Your task to perform on an android device: turn off location Image 0: 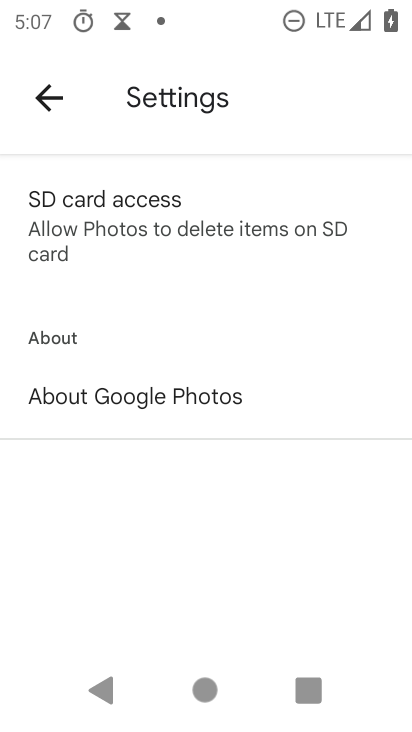
Step 0: press home button
Your task to perform on an android device: turn off location Image 1: 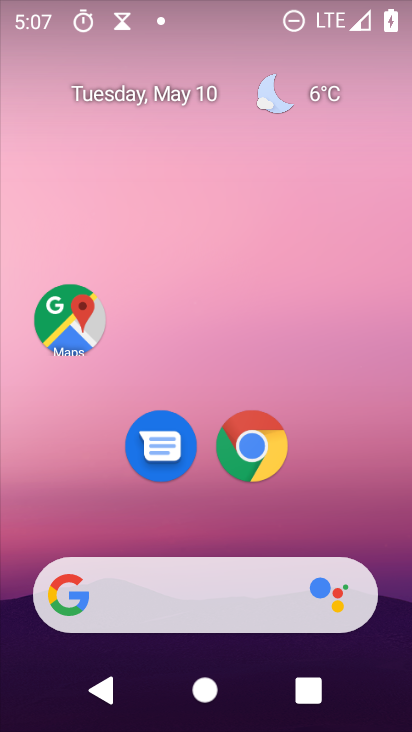
Step 1: drag from (334, 531) to (240, 120)
Your task to perform on an android device: turn off location Image 2: 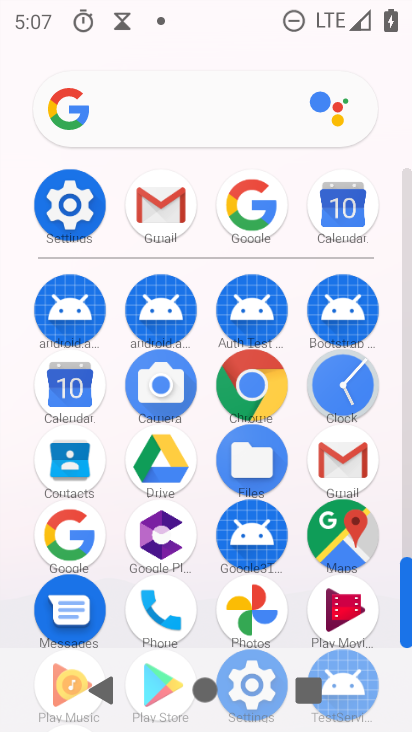
Step 2: click (69, 187)
Your task to perform on an android device: turn off location Image 3: 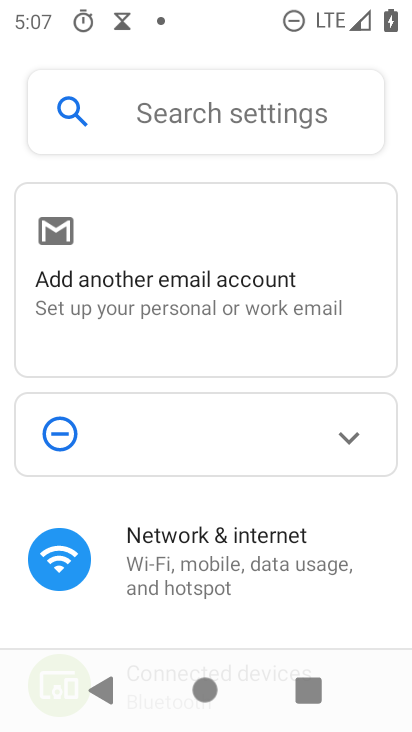
Step 3: drag from (226, 594) to (208, 152)
Your task to perform on an android device: turn off location Image 4: 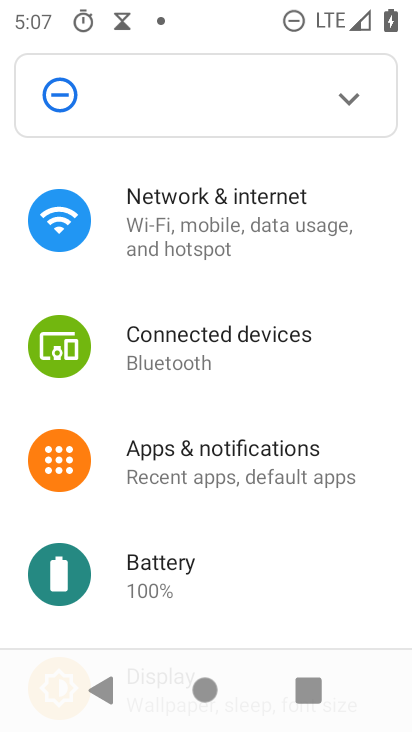
Step 4: drag from (195, 482) to (210, 145)
Your task to perform on an android device: turn off location Image 5: 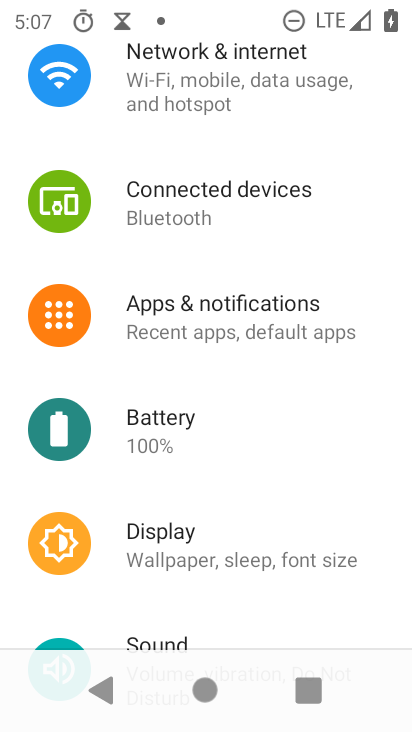
Step 5: drag from (209, 578) to (227, 221)
Your task to perform on an android device: turn off location Image 6: 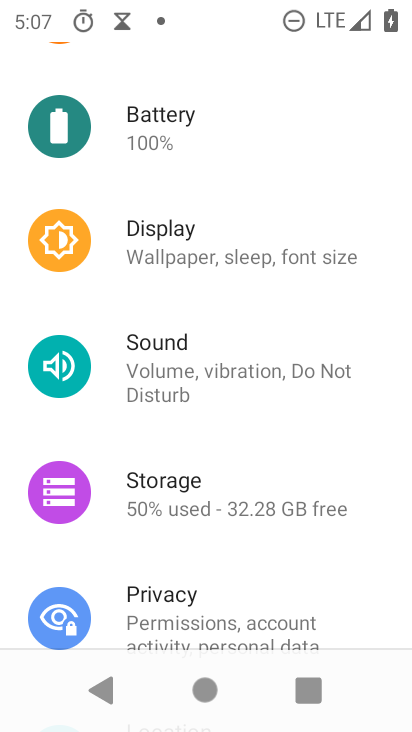
Step 6: drag from (220, 557) to (228, 246)
Your task to perform on an android device: turn off location Image 7: 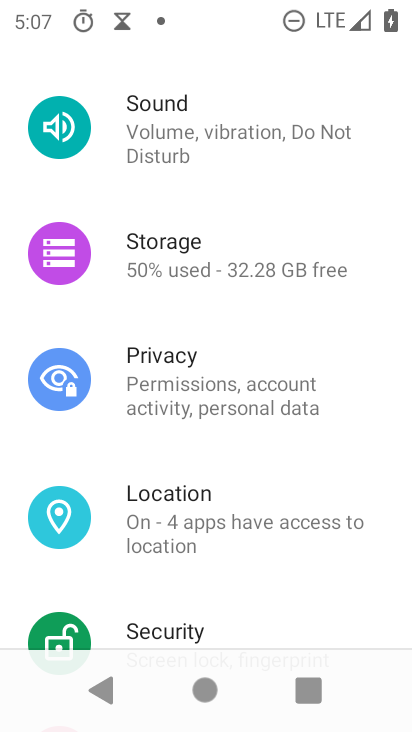
Step 7: click (180, 513)
Your task to perform on an android device: turn off location Image 8: 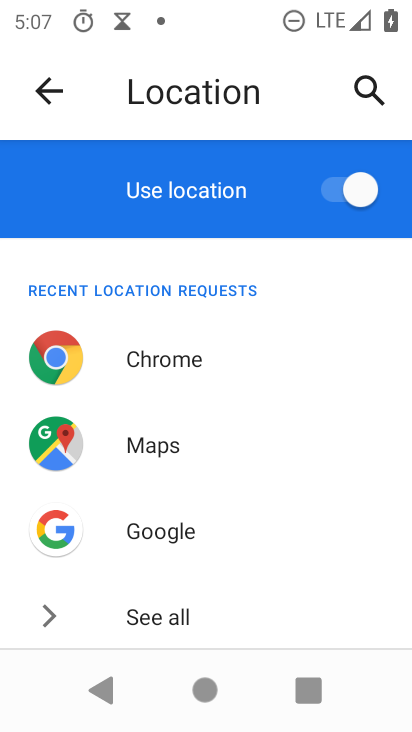
Step 8: click (351, 188)
Your task to perform on an android device: turn off location Image 9: 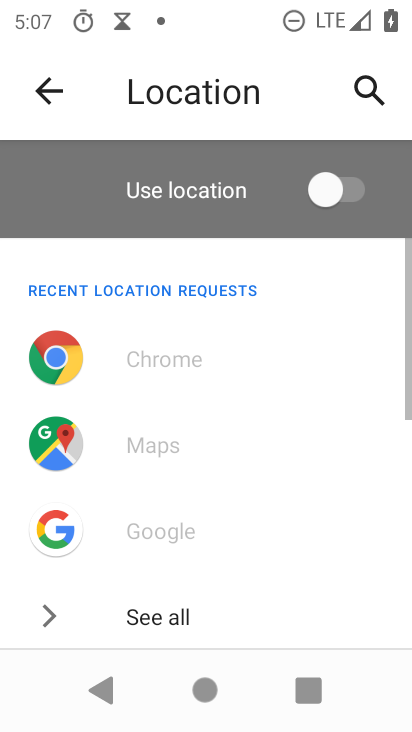
Step 9: task complete